Your task to perform on an android device: delete location history Image 0: 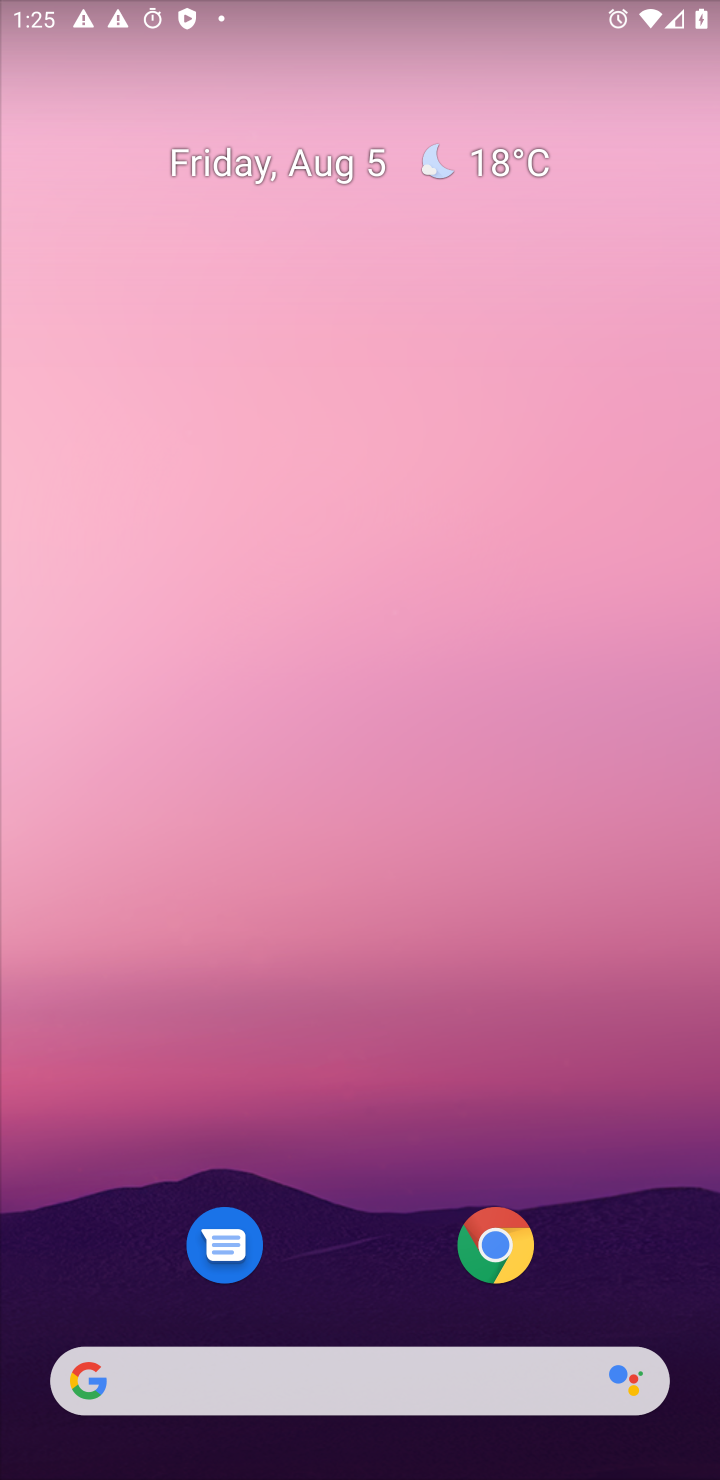
Step 0: press home button
Your task to perform on an android device: delete location history Image 1: 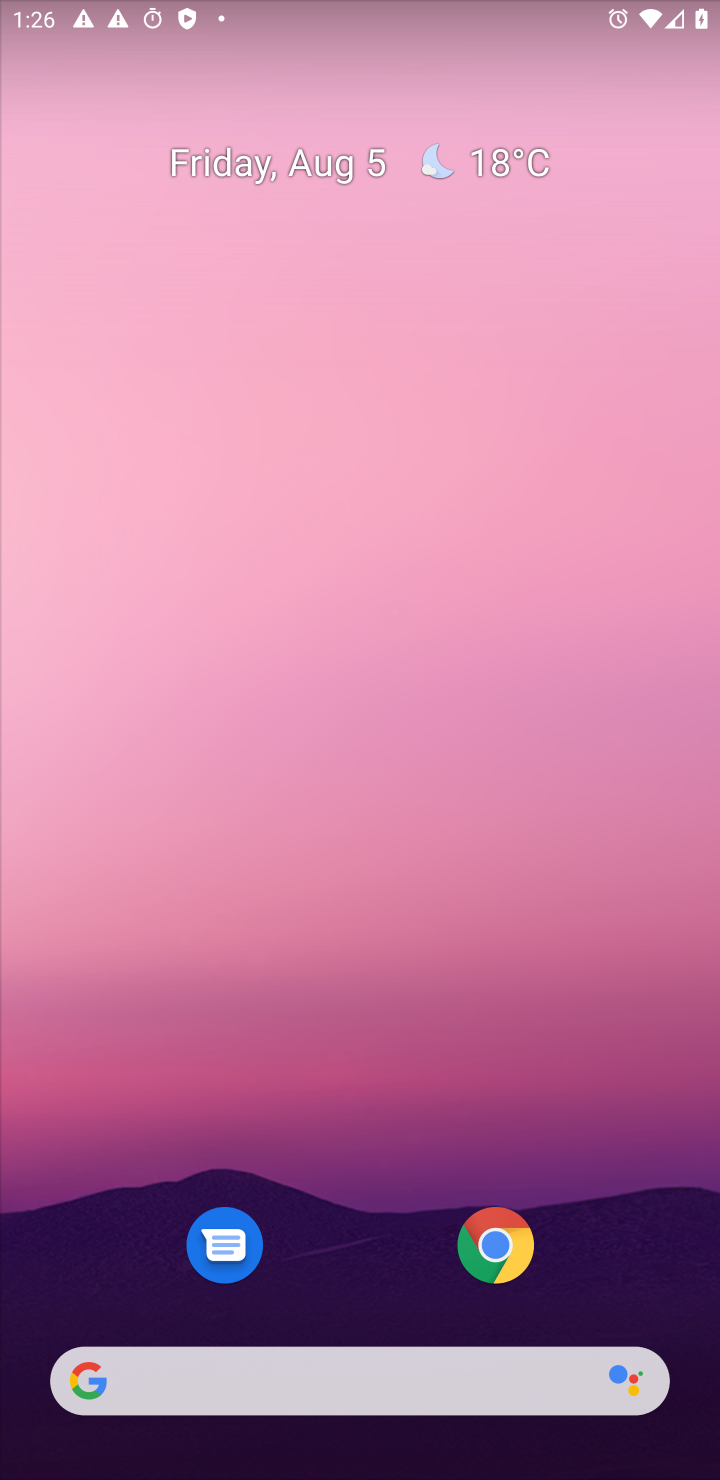
Step 1: drag from (371, 885) to (605, 181)
Your task to perform on an android device: delete location history Image 2: 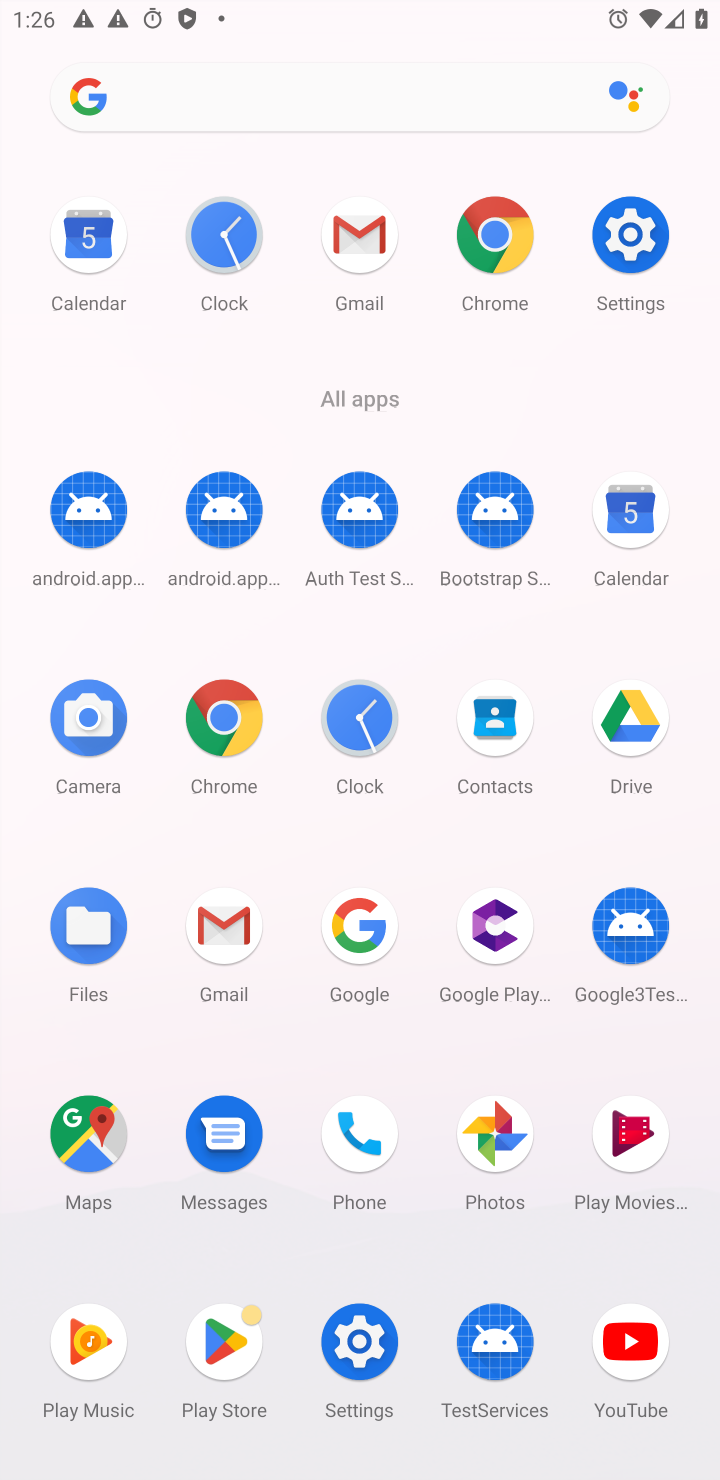
Step 2: click (648, 223)
Your task to perform on an android device: delete location history Image 3: 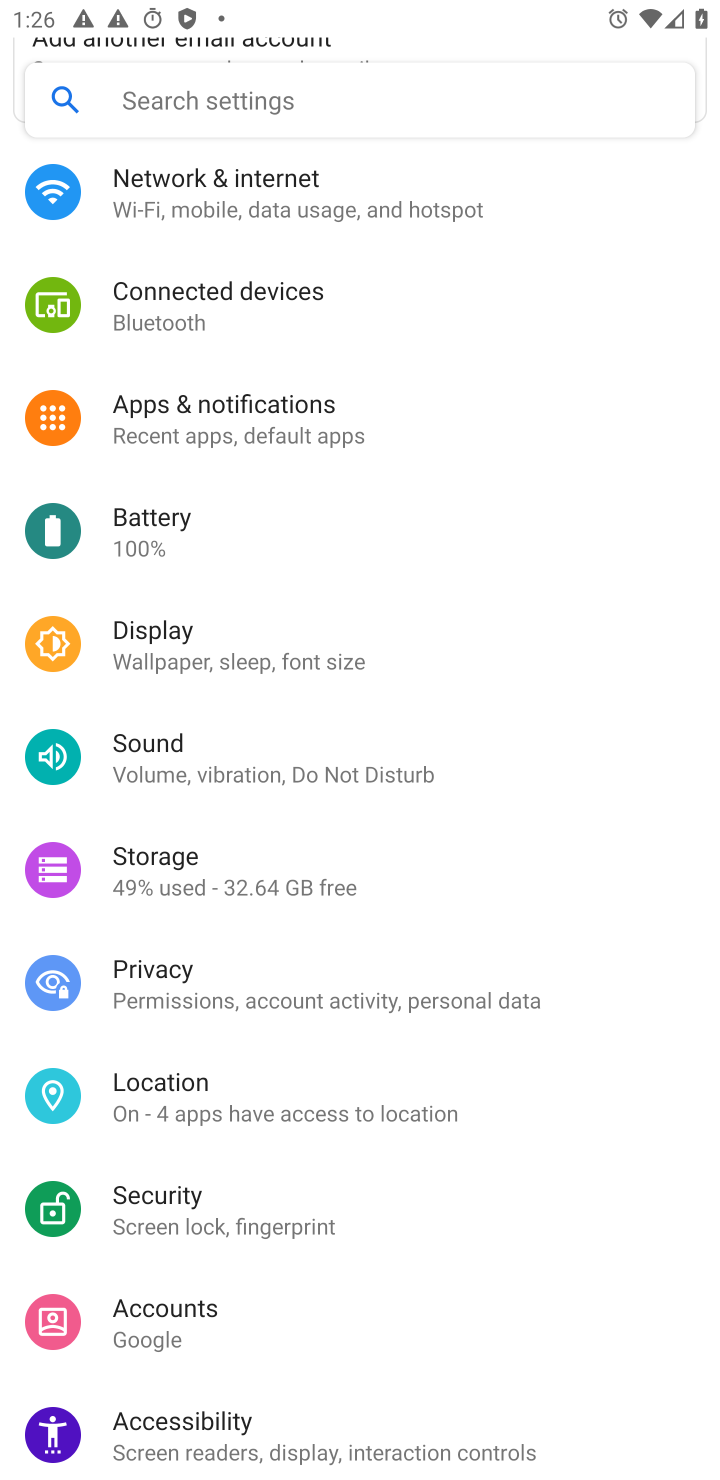
Step 3: click (221, 1111)
Your task to perform on an android device: delete location history Image 4: 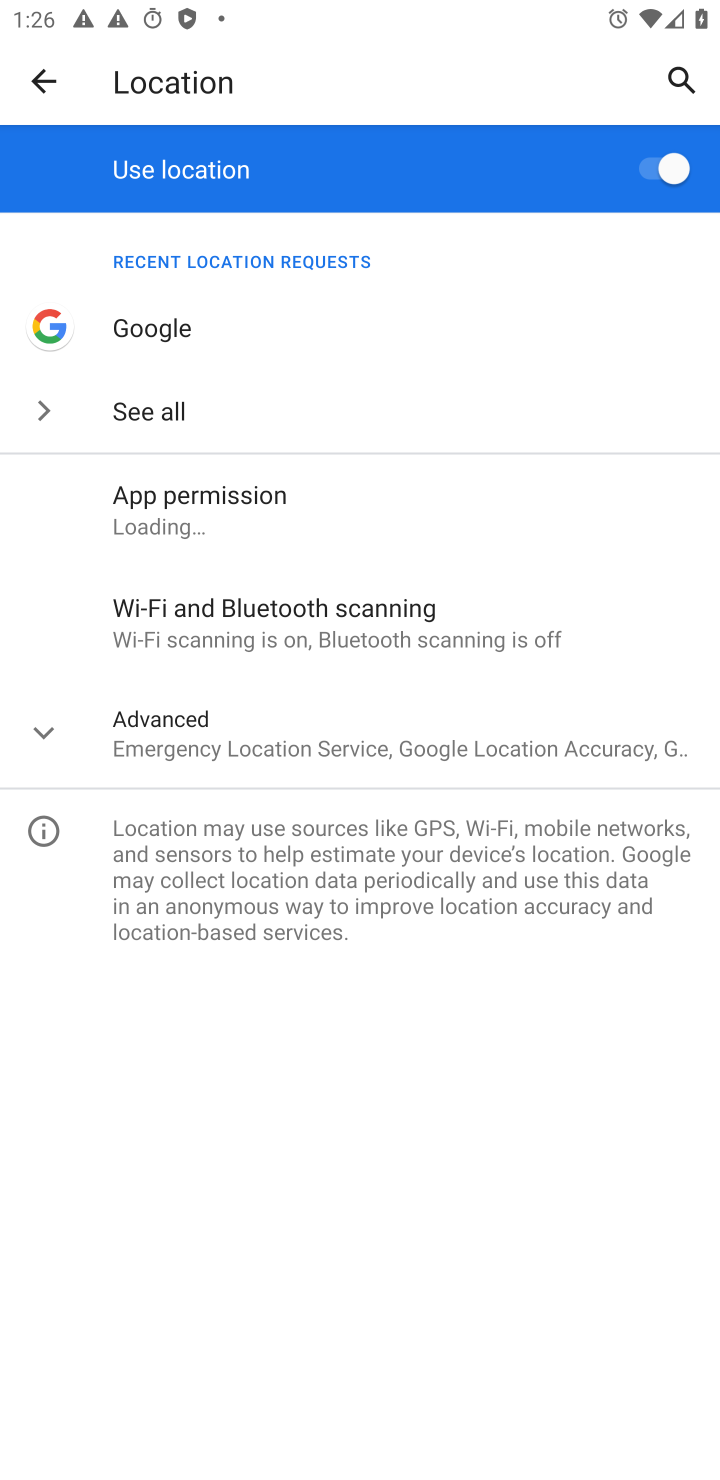
Step 4: click (48, 731)
Your task to perform on an android device: delete location history Image 5: 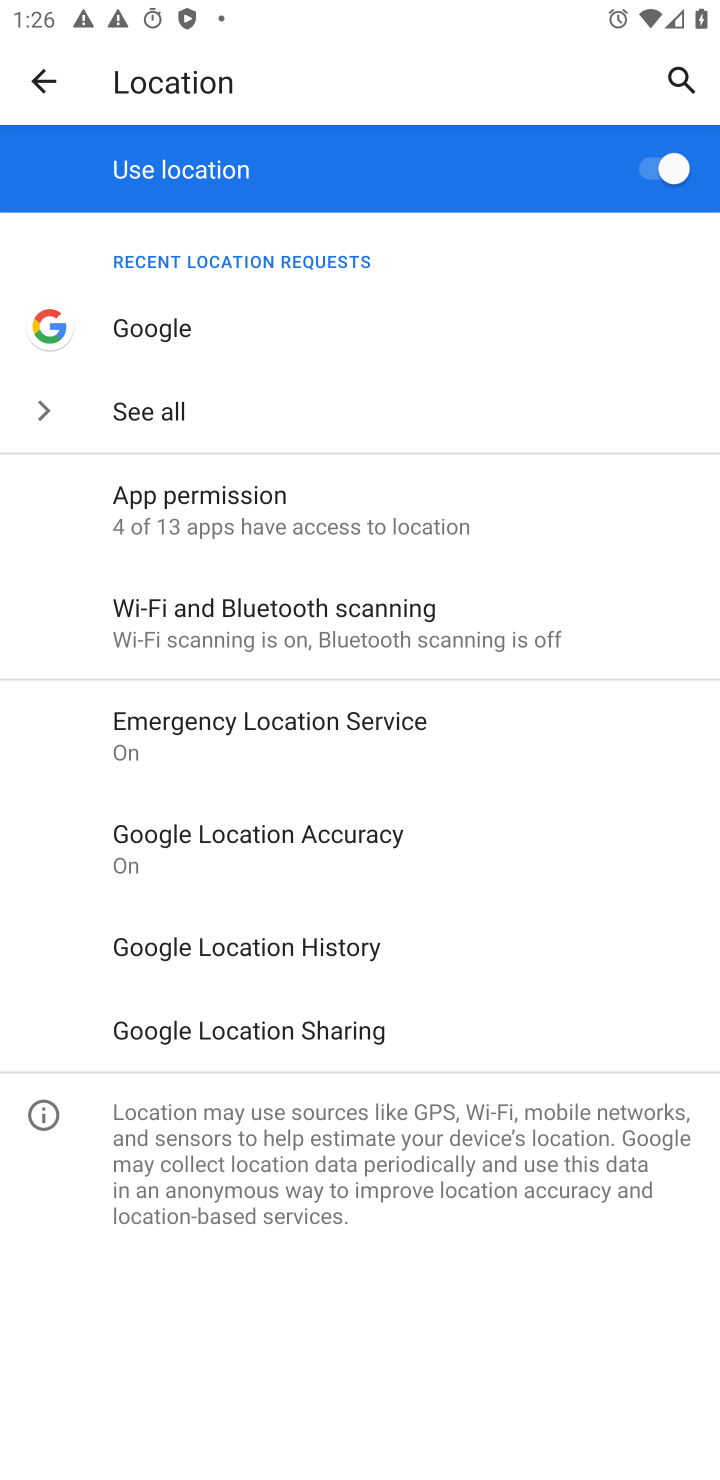
Step 5: click (353, 942)
Your task to perform on an android device: delete location history Image 6: 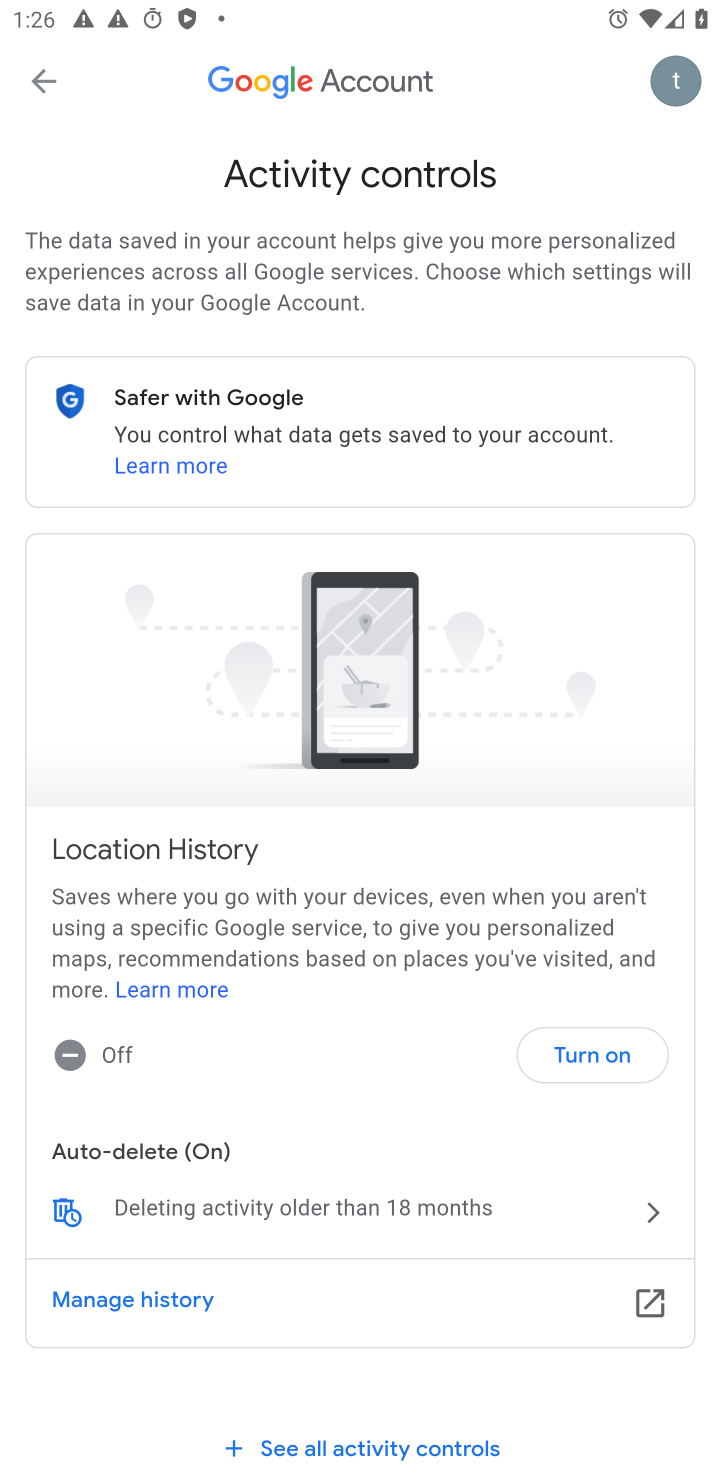
Step 6: click (54, 1211)
Your task to perform on an android device: delete location history Image 7: 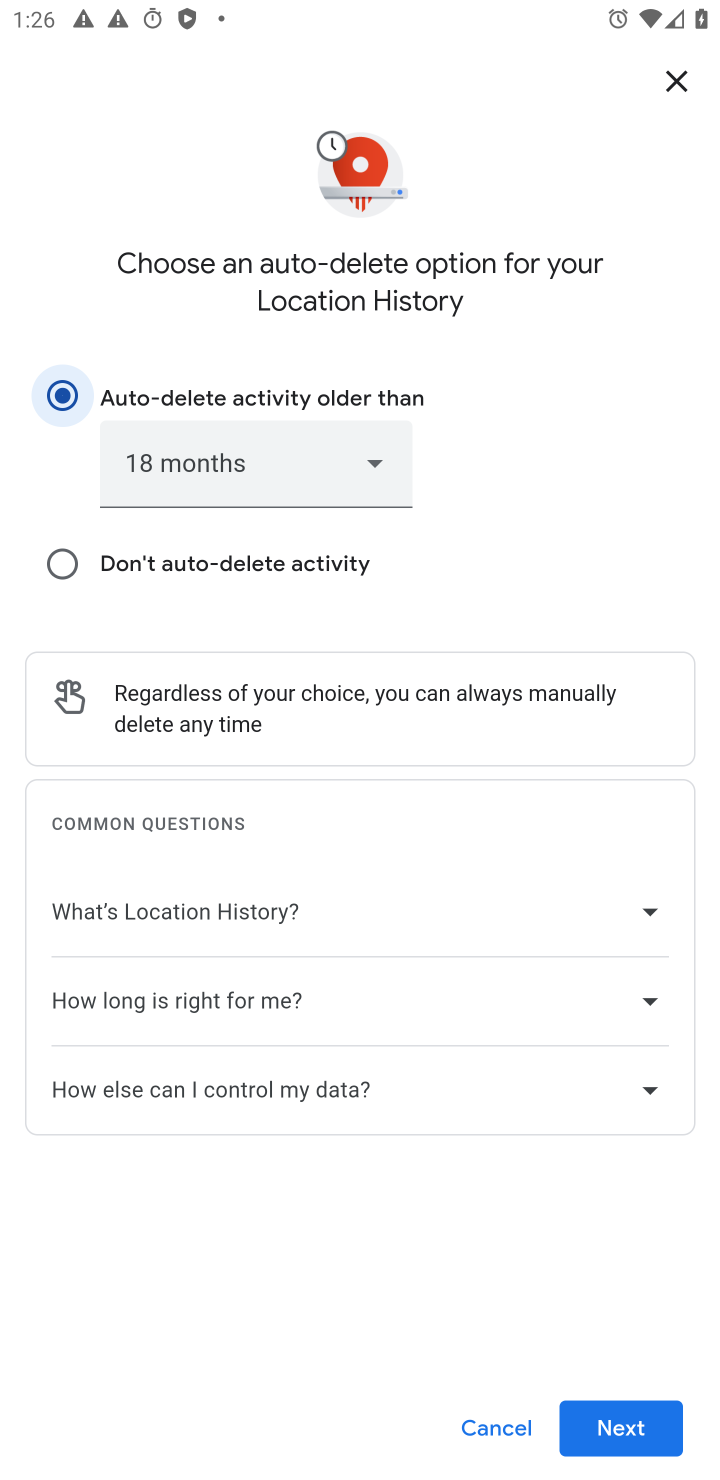
Step 7: click (603, 1443)
Your task to perform on an android device: delete location history Image 8: 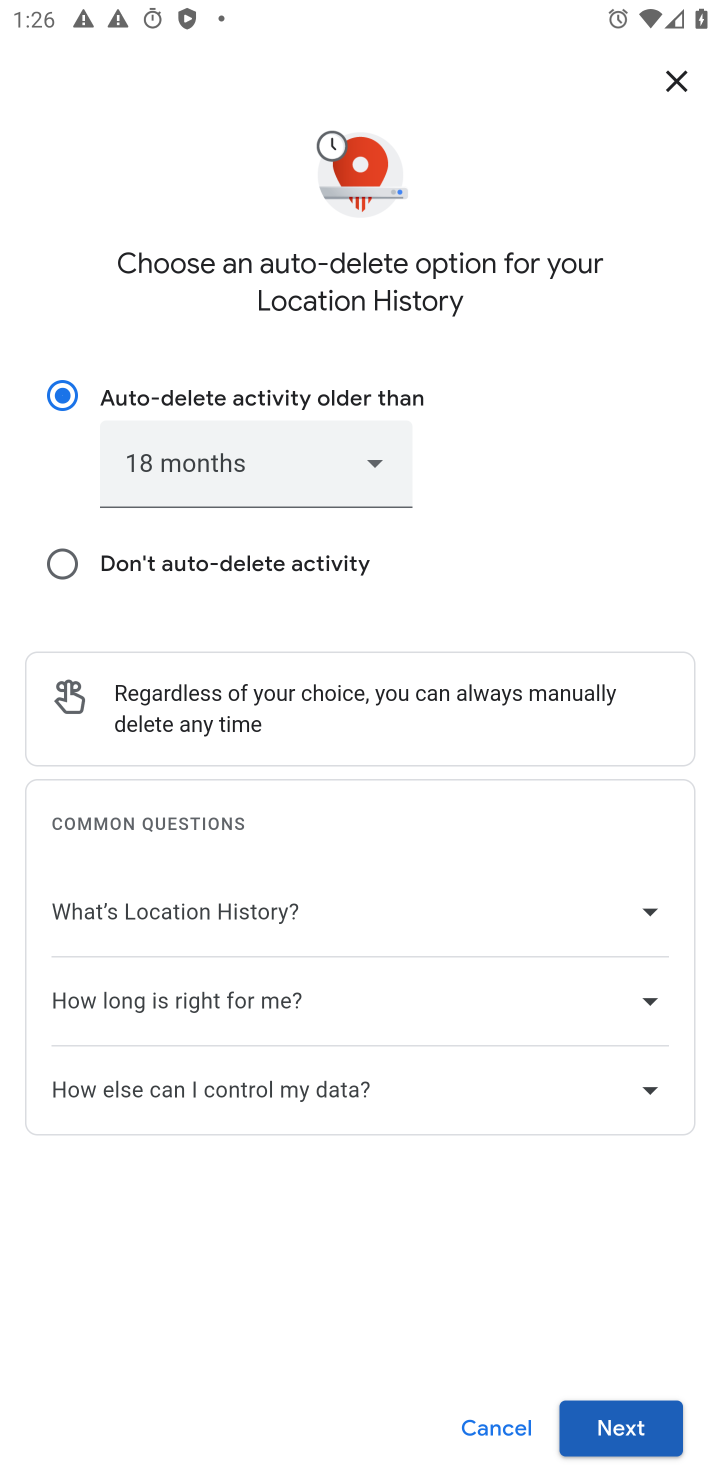
Step 8: click (613, 1432)
Your task to perform on an android device: delete location history Image 9: 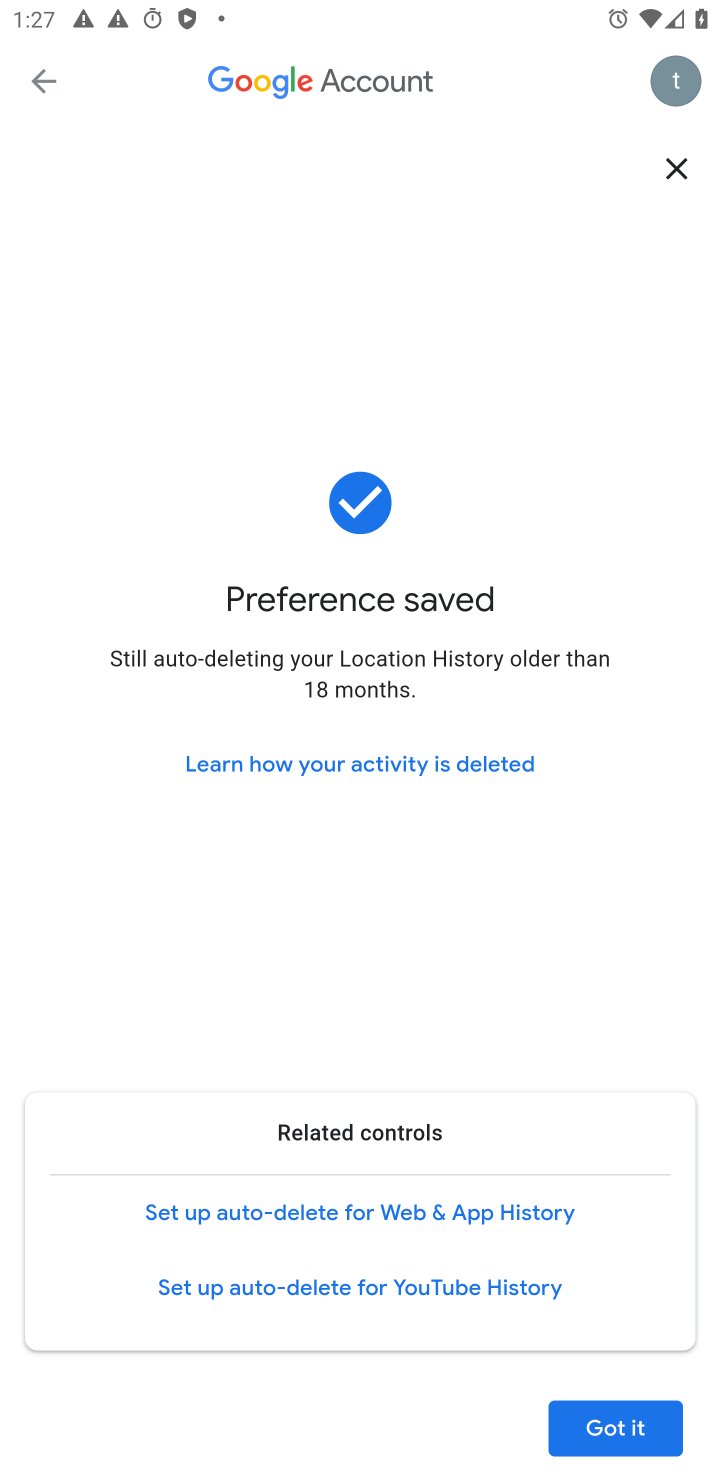
Step 9: click (618, 1422)
Your task to perform on an android device: delete location history Image 10: 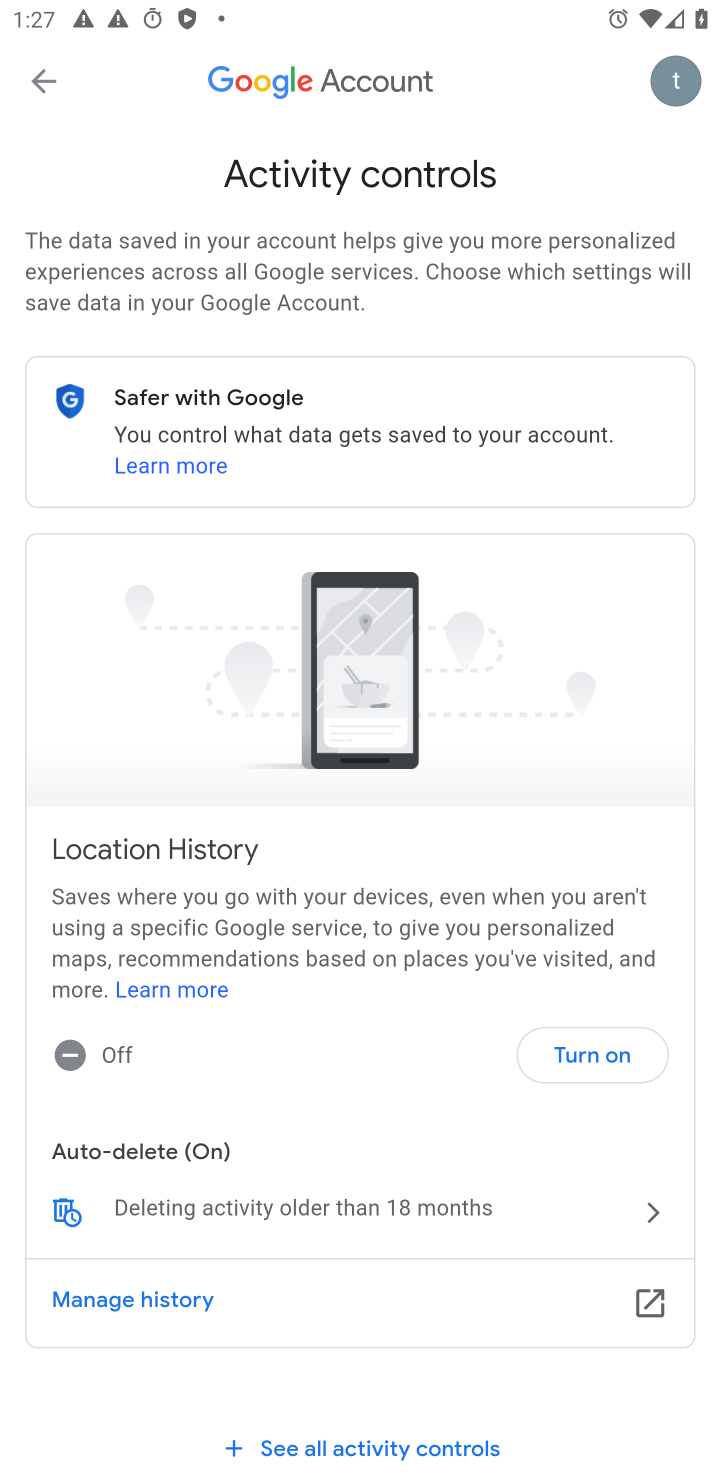
Step 10: task complete